Your task to perform on an android device: Open Wikipedia Image 0: 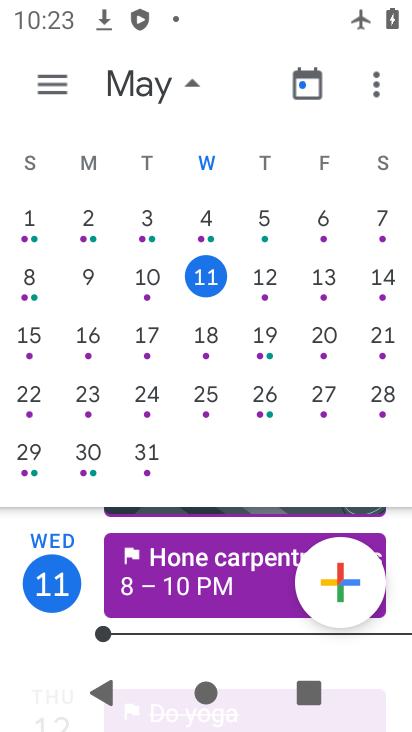
Step 0: press home button
Your task to perform on an android device: Open Wikipedia Image 1: 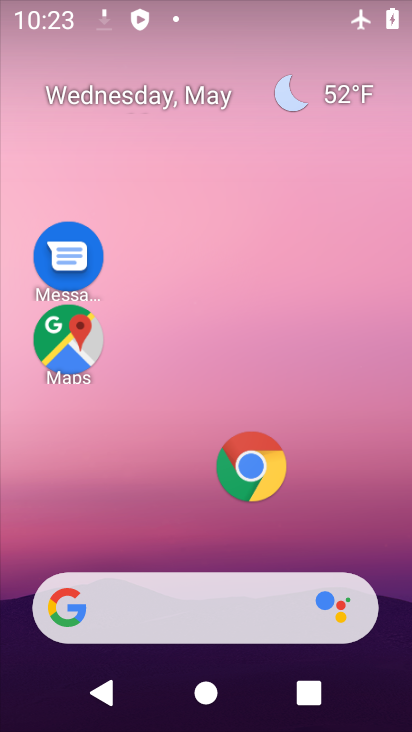
Step 1: click (255, 471)
Your task to perform on an android device: Open Wikipedia Image 2: 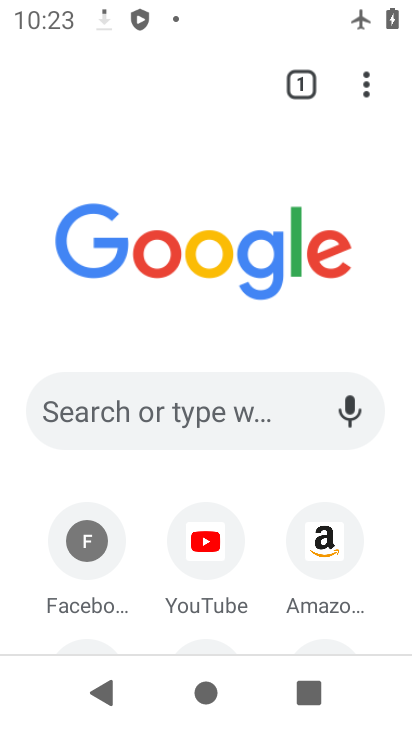
Step 2: drag from (255, 506) to (257, 305)
Your task to perform on an android device: Open Wikipedia Image 3: 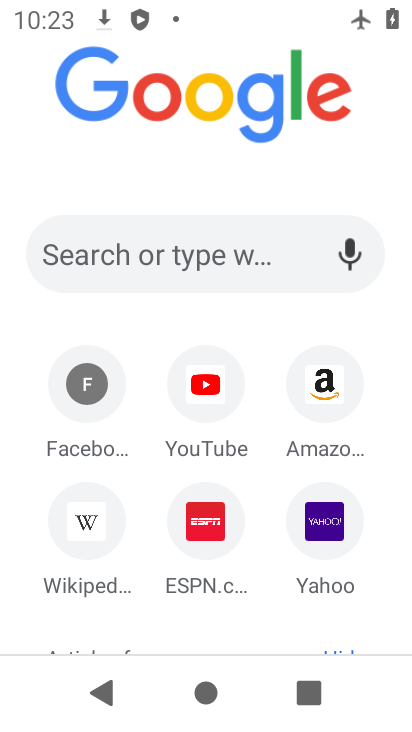
Step 3: click (97, 529)
Your task to perform on an android device: Open Wikipedia Image 4: 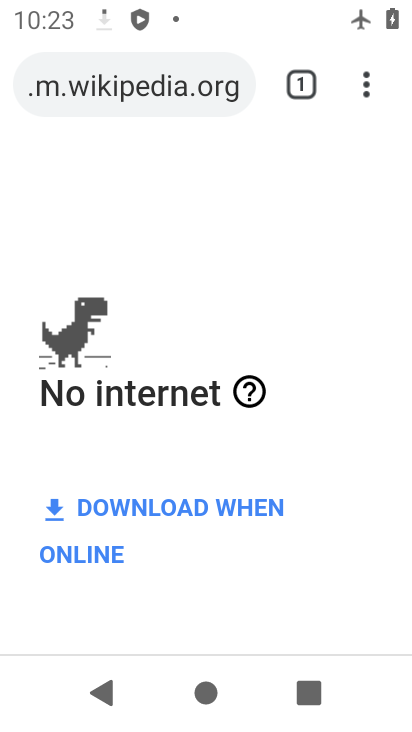
Step 4: task complete